Your task to perform on an android device: open app "Indeed Job Search" (install if not already installed) and enter user name: "quixotic@inbox.com" and password: "microphones" Image 0: 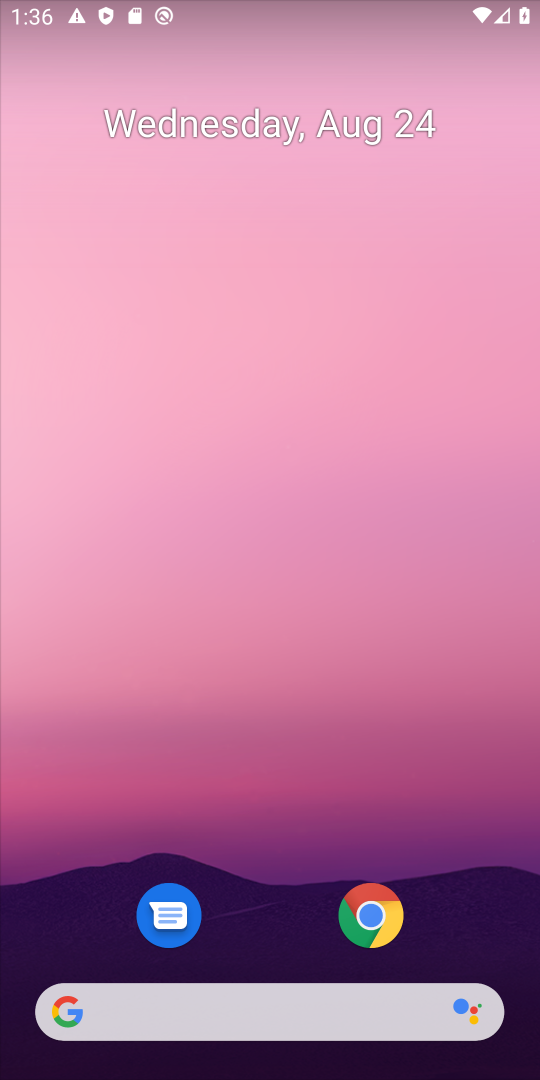
Step 0: drag from (255, 862) to (227, 197)
Your task to perform on an android device: open app "Indeed Job Search" (install if not already installed) and enter user name: "quixotic@inbox.com" and password: "microphones" Image 1: 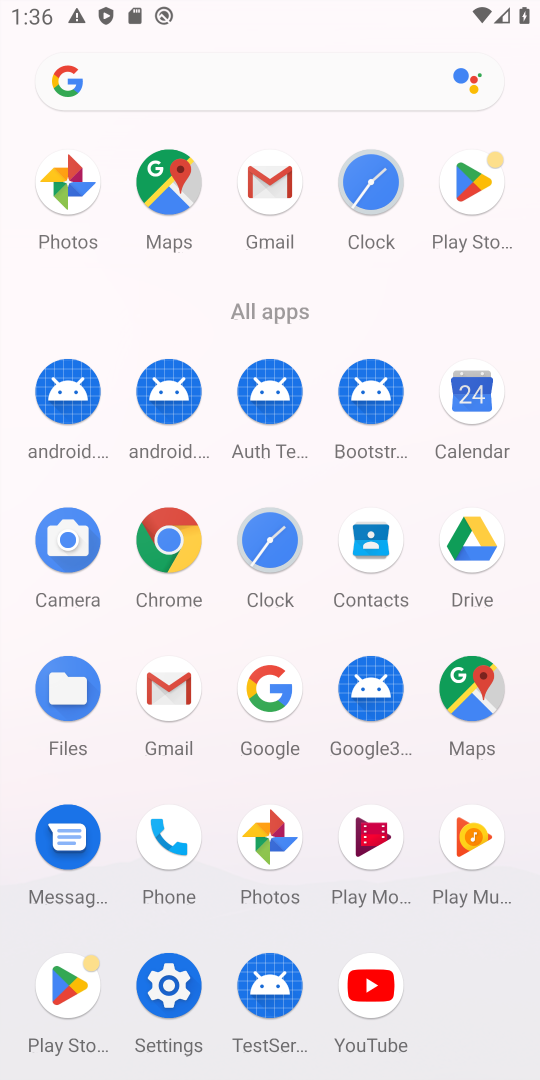
Step 1: click (470, 212)
Your task to perform on an android device: open app "Indeed Job Search" (install if not already installed) and enter user name: "quixotic@inbox.com" and password: "microphones" Image 2: 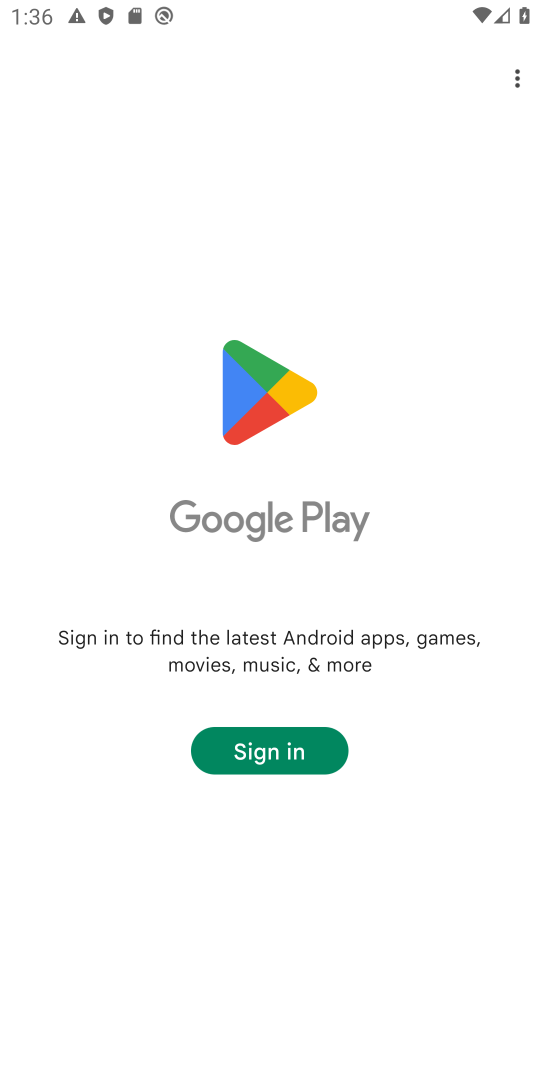
Step 2: task complete